Your task to perform on an android device: View the shopping cart on ebay.com. Add "jbl charge 4" to the cart on ebay.com, then select checkout. Image 0: 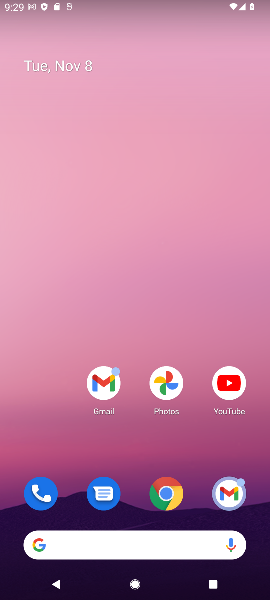
Step 0: click (163, 503)
Your task to perform on an android device: View the shopping cart on ebay.com. Add "jbl charge 4" to the cart on ebay.com, then select checkout. Image 1: 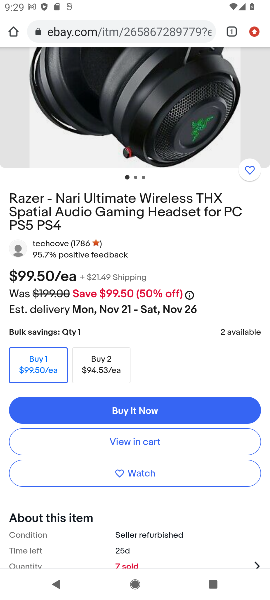
Step 1: click (100, 33)
Your task to perform on an android device: View the shopping cart on ebay.com. Add "jbl charge 4" to the cart on ebay.com, then select checkout. Image 2: 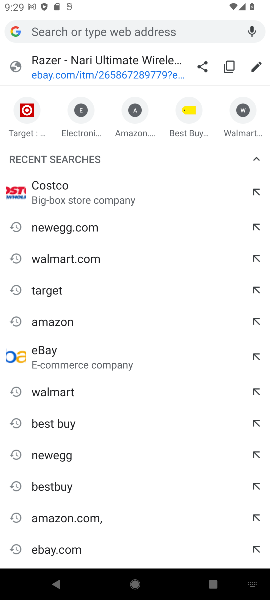
Step 2: click (100, 33)
Your task to perform on an android device: View the shopping cart on ebay.com. Add "jbl charge 4" to the cart on ebay.com, then select checkout. Image 3: 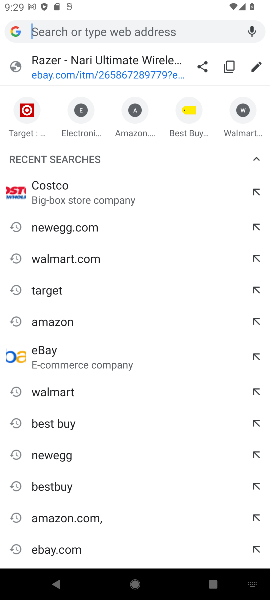
Step 3: type "ebay.com"
Your task to perform on an android device: View the shopping cart on ebay.com. Add "jbl charge 4" to the cart on ebay.com, then select checkout. Image 4: 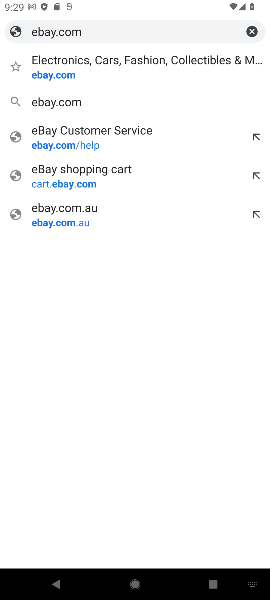
Step 4: click (58, 75)
Your task to perform on an android device: View the shopping cart on ebay.com. Add "jbl charge 4" to the cart on ebay.com, then select checkout. Image 5: 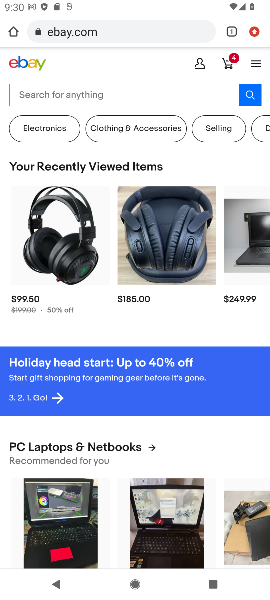
Step 5: click (226, 66)
Your task to perform on an android device: View the shopping cart on ebay.com. Add "jbl charge 4" to the cart on ebay.com, then select checkout. Image 6: 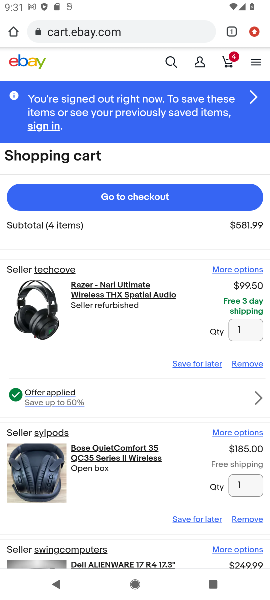
Step 6: click (171, 68)
Your task to perform on an android device: View the shopping cart on ebay.com. Add "jbl charge 4" to the cart on ebay.com, then select checkout. Image 7: 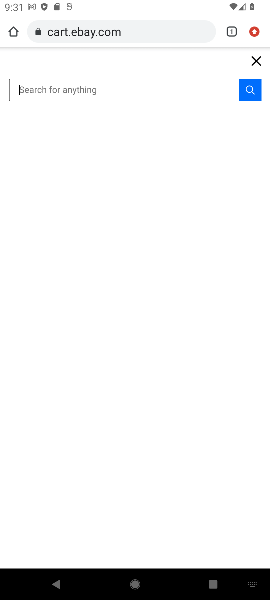
Step 7: type "jbl charge 4"
Your task to perform on an android device: View the shopping cart on ebay.com. Add "jbl charge 4" to the cart on ebay.com, then select checkout. Image 8: 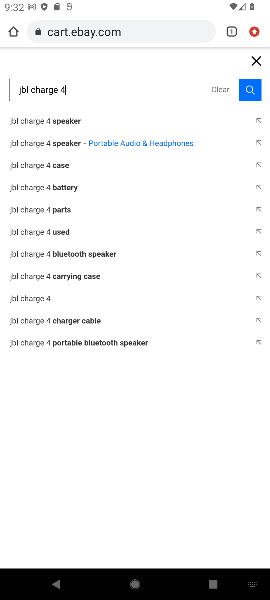
Step 8: click (250, 93)
Your task to perform on an android device: View the shopping cart on ebay.com. Add "jbl charge 4" to the cart on ebay.com, then select checkout. Image 9: 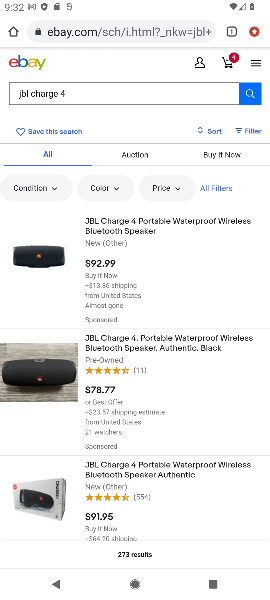
Step 9: click (34, 251)
Your task to perform on an android device: View the shopping cart on ebay.com. Add "jbl charge 4" to the cart on ebay.com, then select checkout. Image 10: 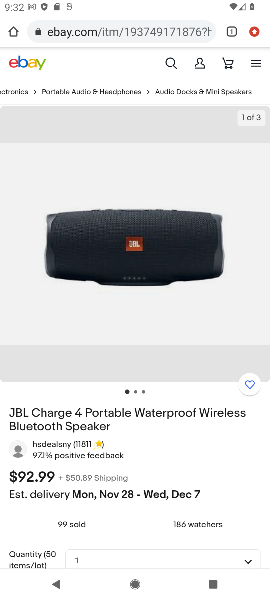
Step 10: drag from (107, 377) to (109, 229)
Your task to perform on an android device: View the shopping cart on ebay.com. Add "jbl charge 4" to the cart on ebay.com, then select checkout. Image 11: 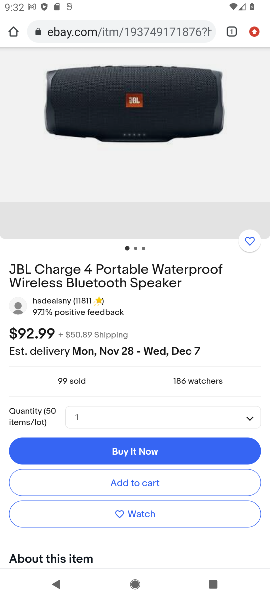
Step 11: click (140, 476)
Your task to perform on an android device: View the shopping cart on ebay.com. Add "jbl charge 4" to the cart on ebay.com, then select checkout. Image 12: 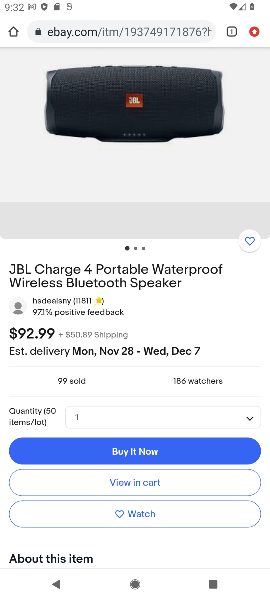
Step 12: click (137, 480)
Your task to perform on an android device: View the shopping cart on ebay.com. Add "jbl charge 4" to the cart on ebay.com, then select checkout. Image 13: 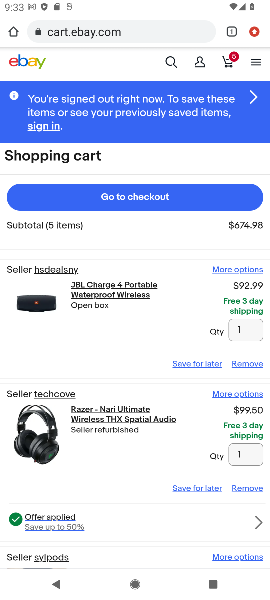
Step 13: click (164, 191)
Your task to perform on an android device: View the shopping cart on ebay.com. Add "jbl charge 4" to the cart on ebay.com, then select checkout. Image 14: 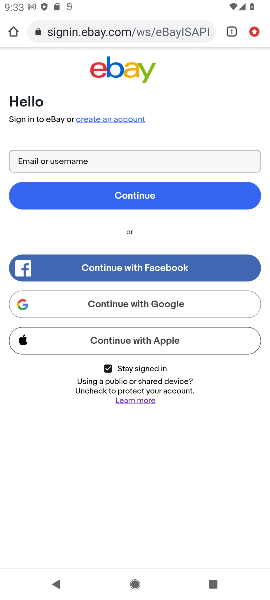
Step 14: task complete